Your task to perform on an android device: move a message to another label in the gmail app Image 0: 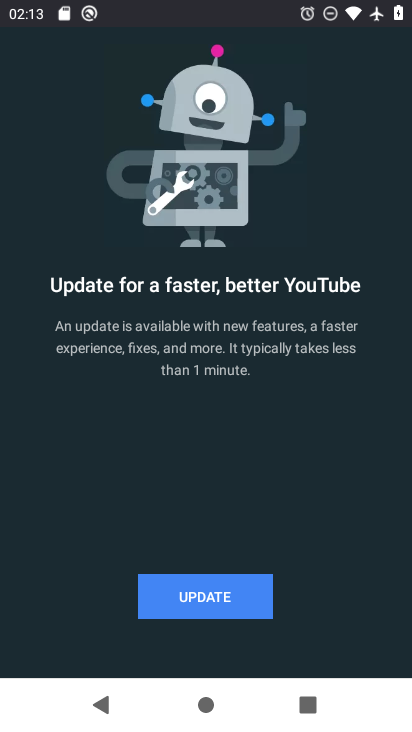
Step 0: press home button
Your task to perform on an android device: move a message to another label in the gmail app Image 1: 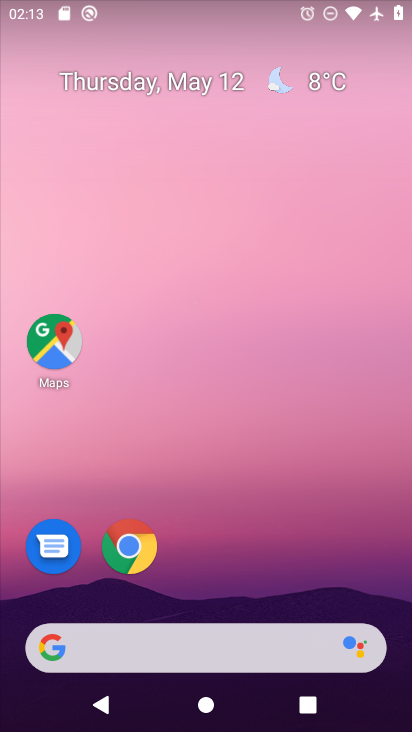
Step 1: drag from (134, 621) to (251, 260)
Your task to perform on an android device: move a message to another label in the gmail app Image 2: 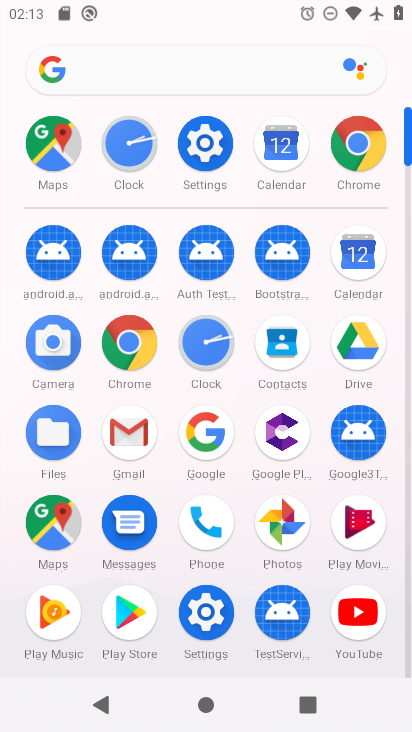
Step 2: click (127, 430)
Your task to perform on an android device: move a message to another label in the gmail app Image 3: 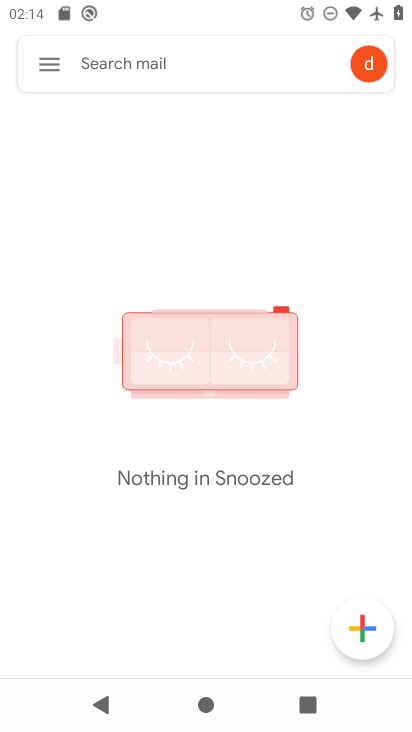
Step 3: task complete